Your task to perform on an android device: change notifications settings Image 0: 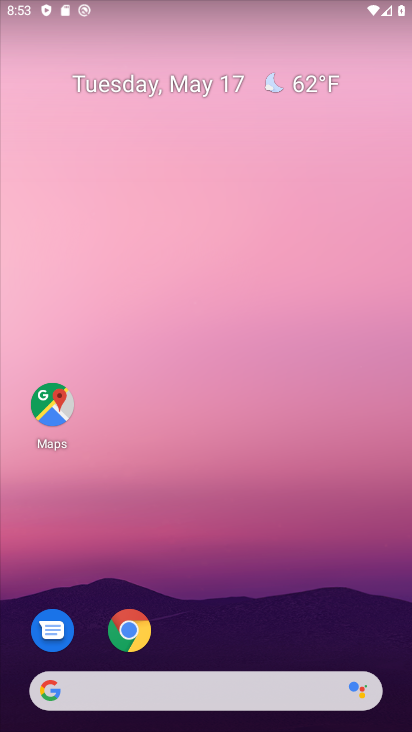
Step 0: drag from (178, 549) to (191, 169)
Your task to perform on an android device: change notifications settings Image 1: 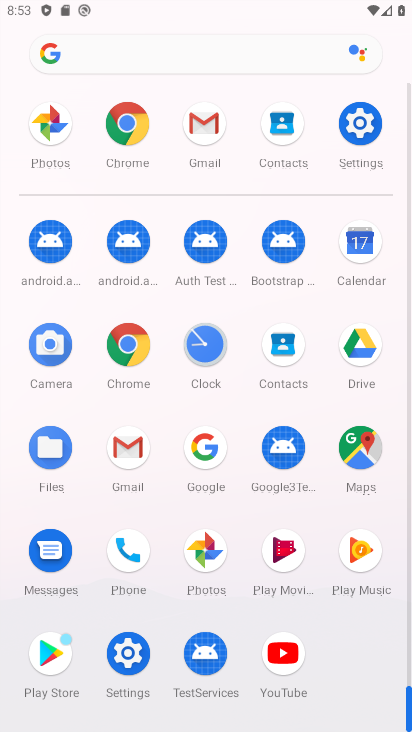
Step 1: click (366, 135)
Your task to perform on an android device: change notifications settings Image 2: 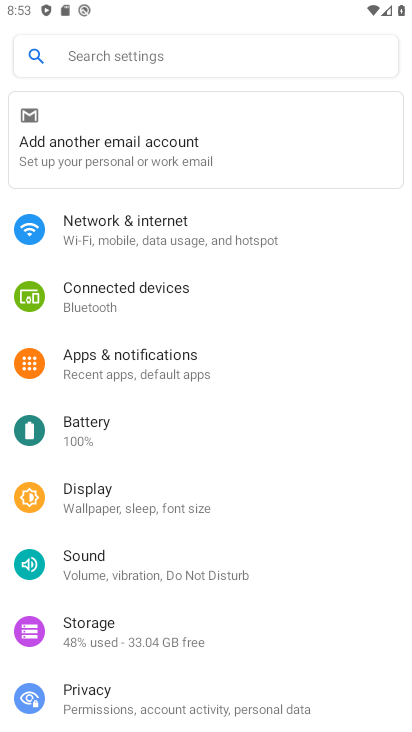
Step 2: click (124, 355)
Your task to perform on an android device: change notifications settings Image 3: 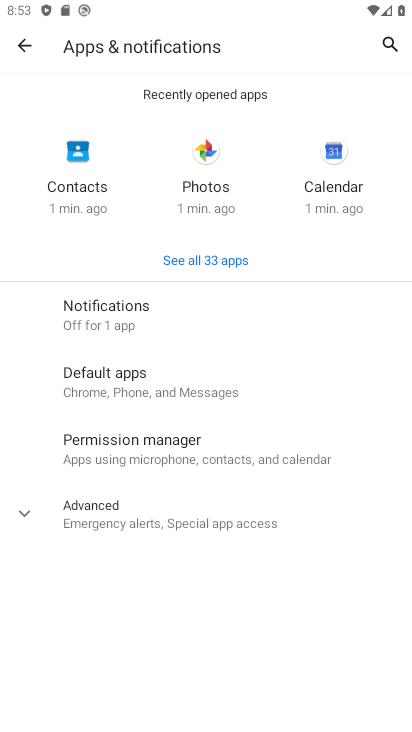
Step 3: click (108, 330)
Your task to perform on an android device: change notifications settings Image 4: 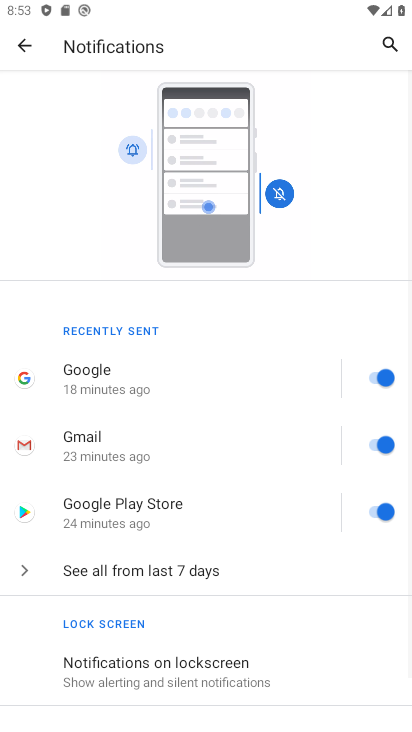
Step 4: click (143, 664)
Your task to perform on an android device: change notifications settings Image 5: 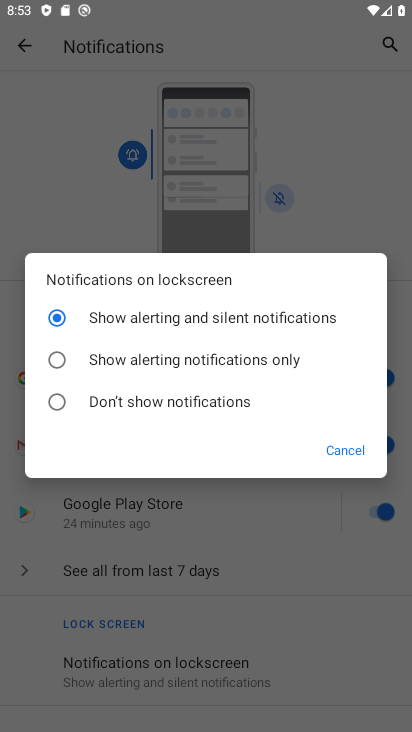
Step 5: click (56, 404)
Your task to perform on an android device: change notifications settings Image 6: 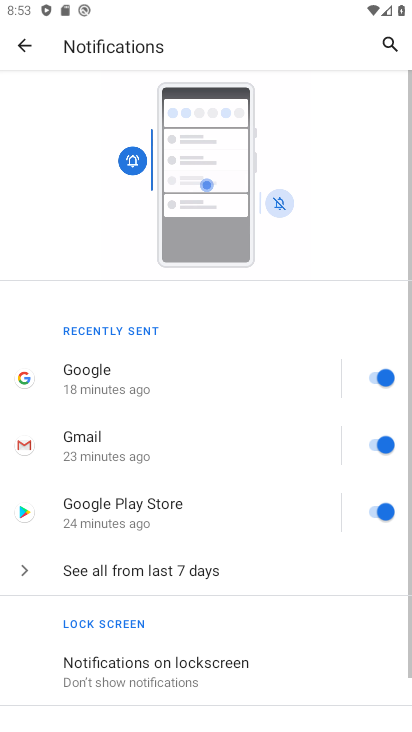
Step 6: task complete